Your task to perform on an android device: Go to ESPN.com Image 0: 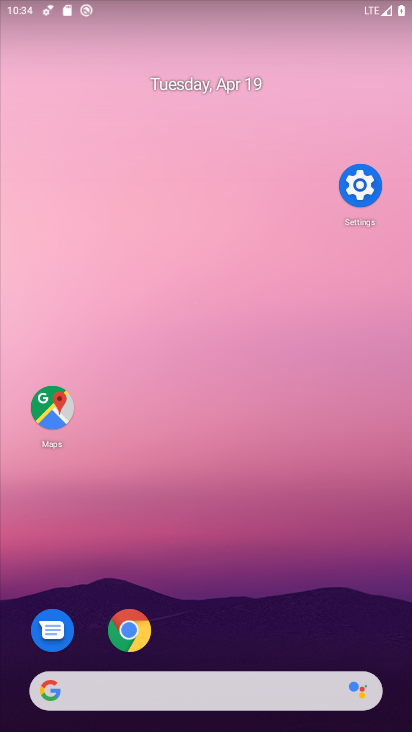
Step 0: drag from (271, 574) to (320, 258)
Your task to perform on an android device: Go to ESPN.com Image 1: 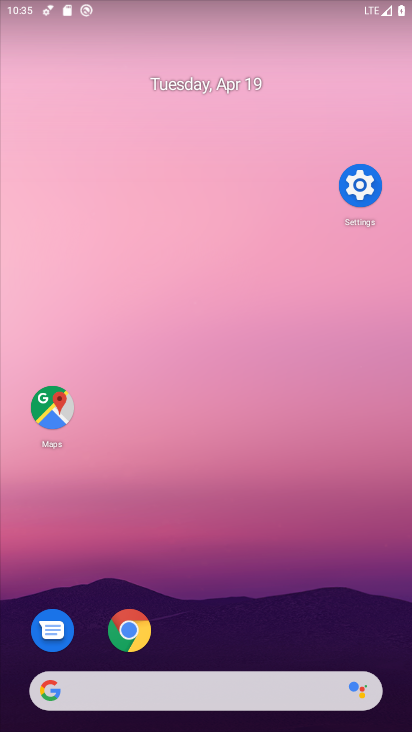
Step 1: drag from (331, 181) to (346, 97)
Your task to perform on an android device: Go to ESPN.com Image 2: 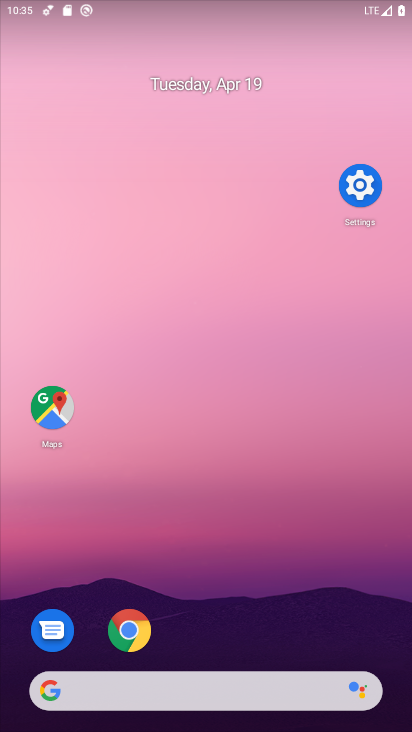
Step 2: click (142, 628)
Your task to perform on an android device: Go to ESPN.com Image 3: 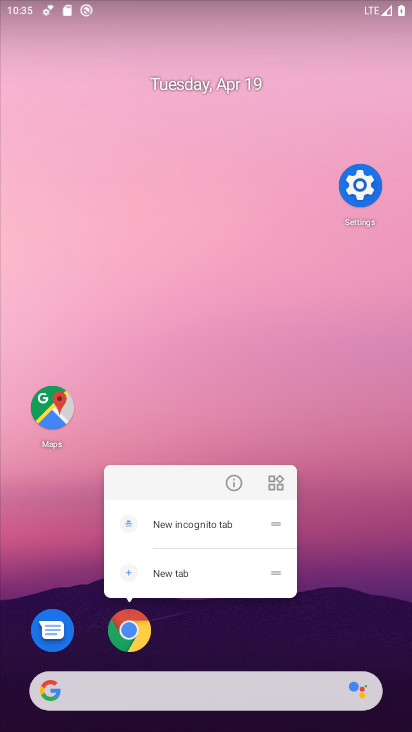
Step 3: click (134, 642)
Your task to perform on an android device: Go to ESPN.com Image 4: 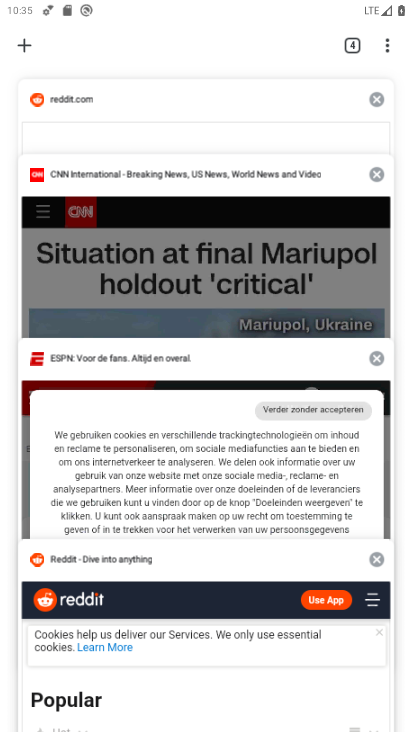
Step 4: click (26, 42)
Your task to perform on an android device: Go to ESPN.com Image 5: 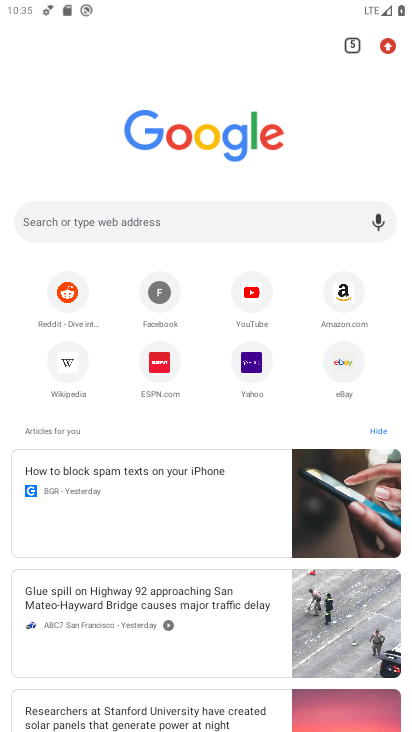
Step 5: click (157, 378)
Your task to perform on an android device: Go to ESPN.com Image 6: 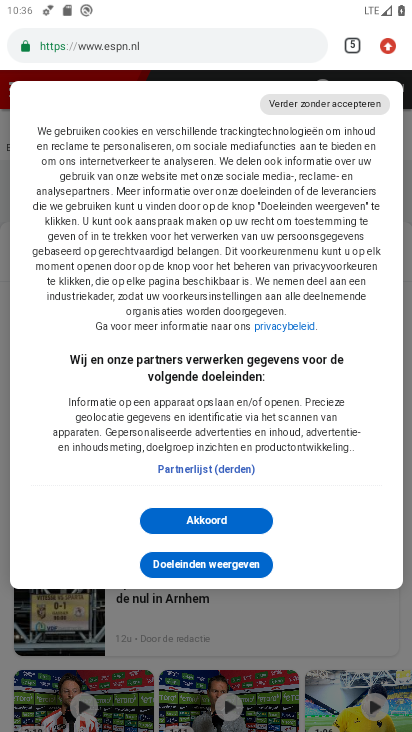
Step 6: task complete